Your task to perform on an android device: Go to settings Image 0: 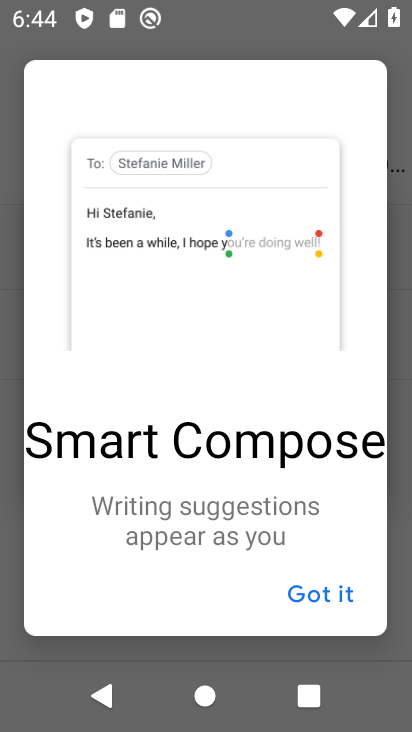
Step 0: press home button
Your task to perform on an android device: Go to settings Image 1: 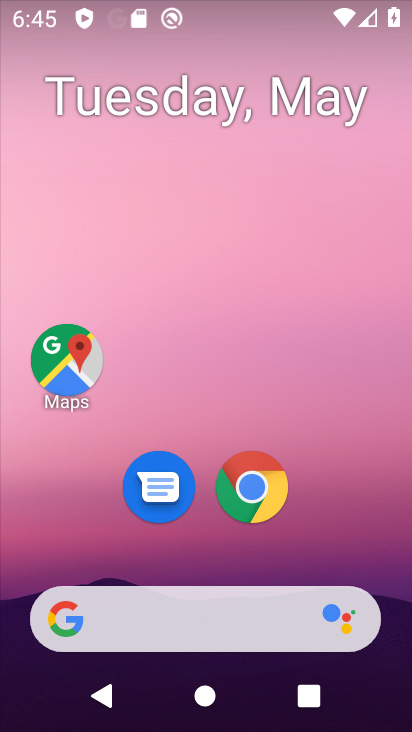
Step 1: drag from (329, 512) to (239, 153)
Your task to perform on an android device: Go to settings Image 2: 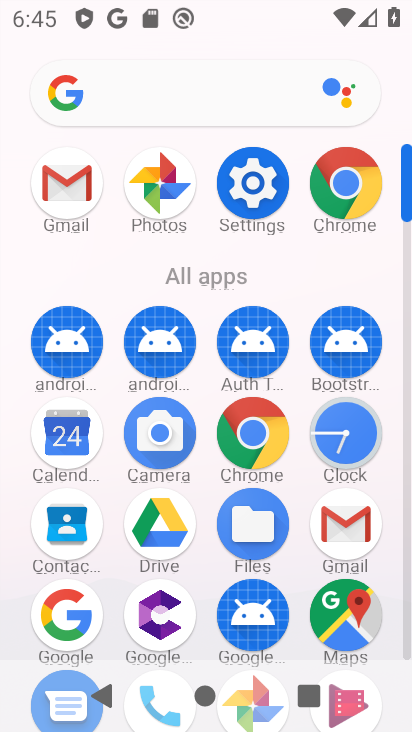
Step 2: click (257, 182)
Your task to perform on an android device: Go to settings Image 3: 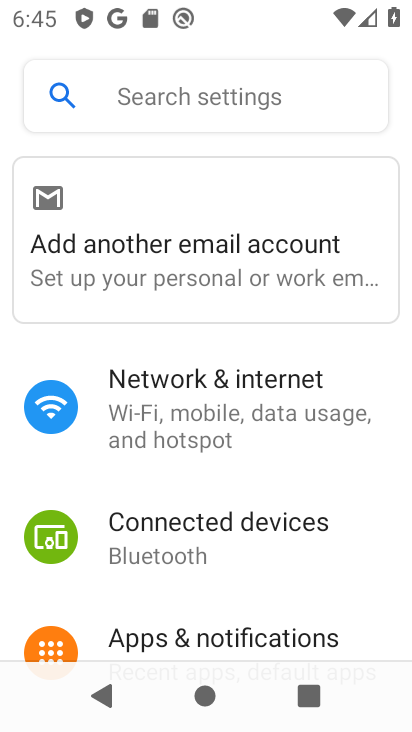
Step 3: task complete